Your task to perform on an android device: toggle javascript in the chrome app Image 0: 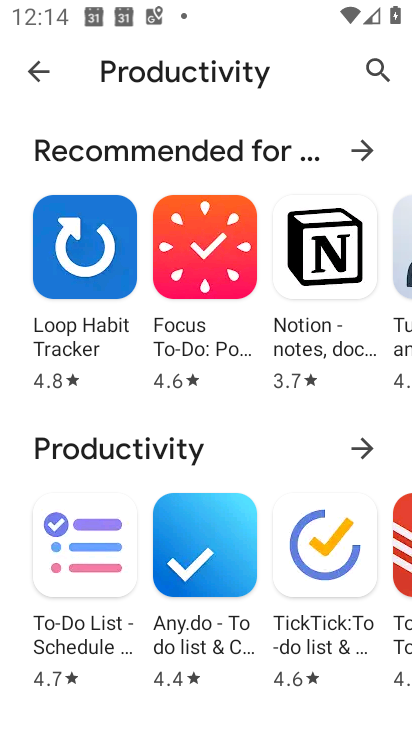
Step 0: press home button
Your task to perform on an android device: toggle javascript in the chrome app Image 1: 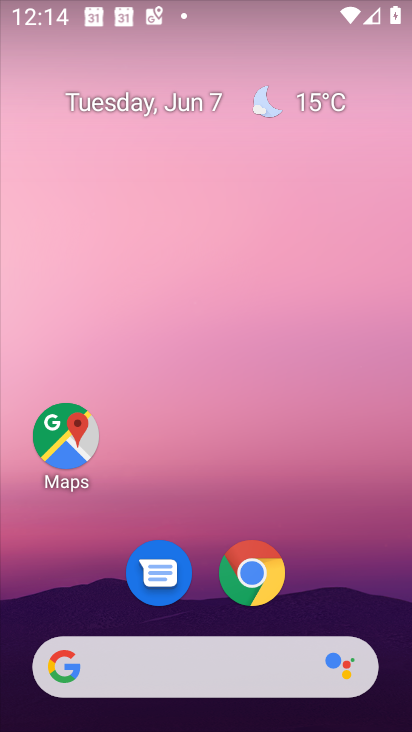
Step 1: click (236, 561)
Your task to perform on an android device: toggle javascript in the chrome app Image 2: 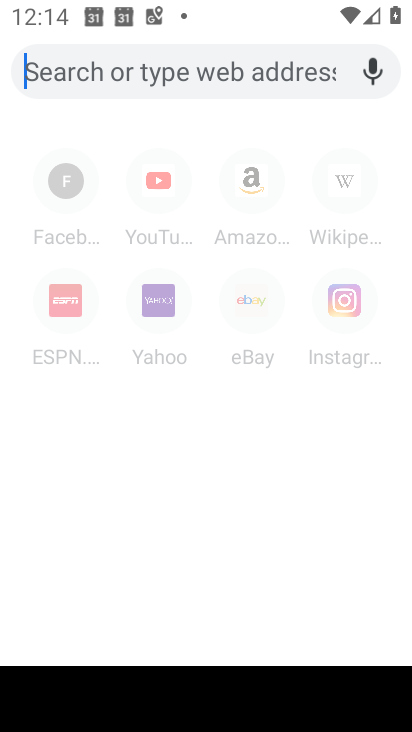
Step 2: press home button
Your task to perform on an android device: toggle javascript in the chrome app Image 3: 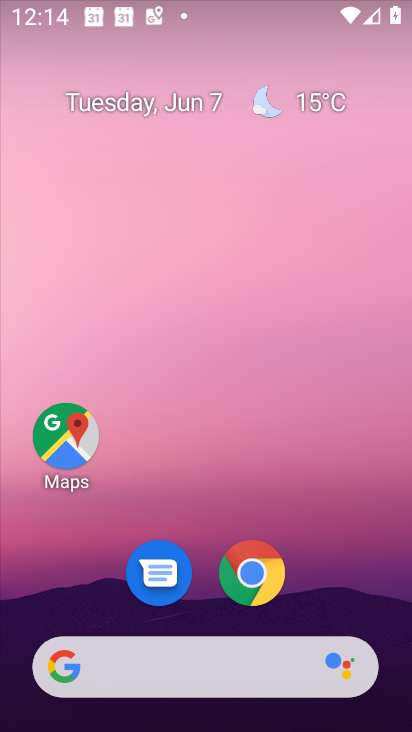
Step 3: click (250, 570)
Your task to perform on an android device: toggle javascript in the chrome app Image 4: 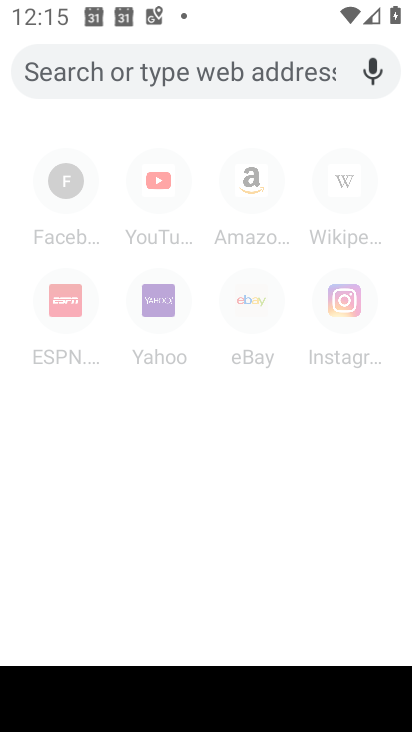
Step 4: press back button
Your task to perform on an android device: toggle javascript in the chrome app Image 5: 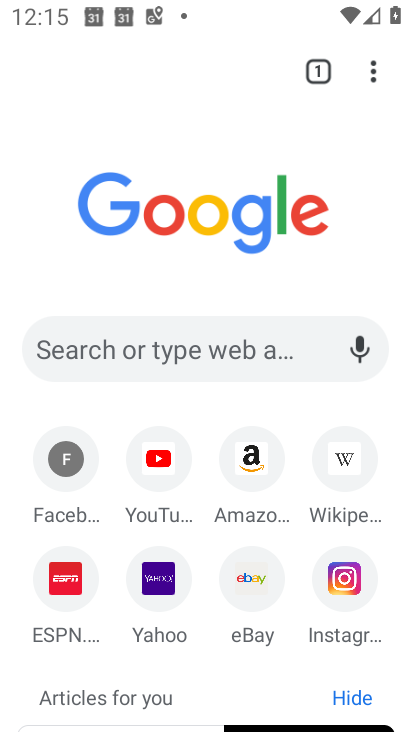
Step 5: drag from (380, 70) to (213, 571)
Your task to perform on an android device: toggle javascript in the chrome app Image 6: 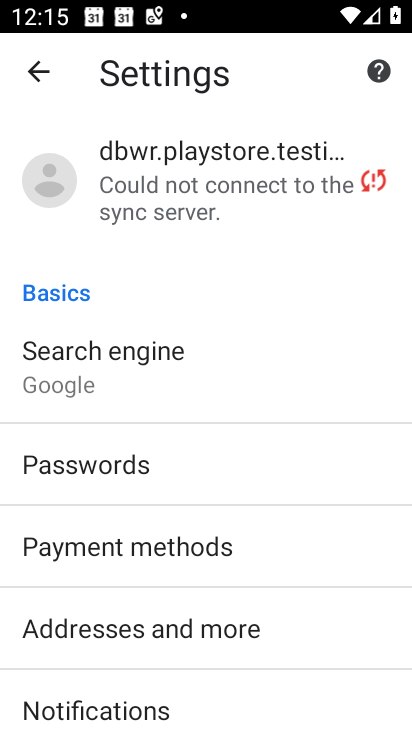
Step 6: drag from (275, 676) to (305, 126)
Your task to perform on an android device: toggle javascript in the chrome app Image 7: 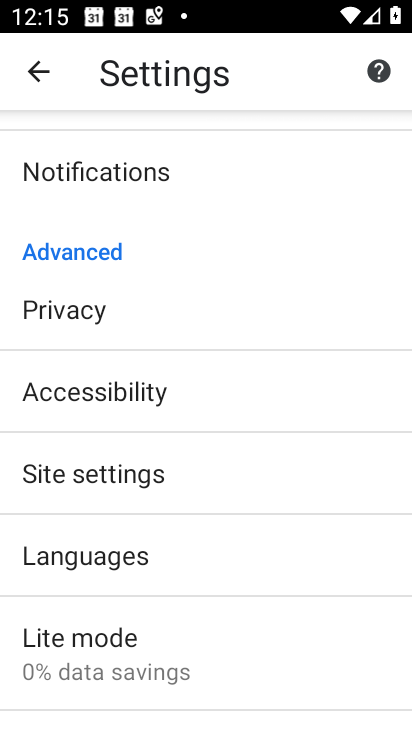
Step 7: click (72, 470)
Your task to perform on an android device: toggle javascript in the chrome app Image 8: 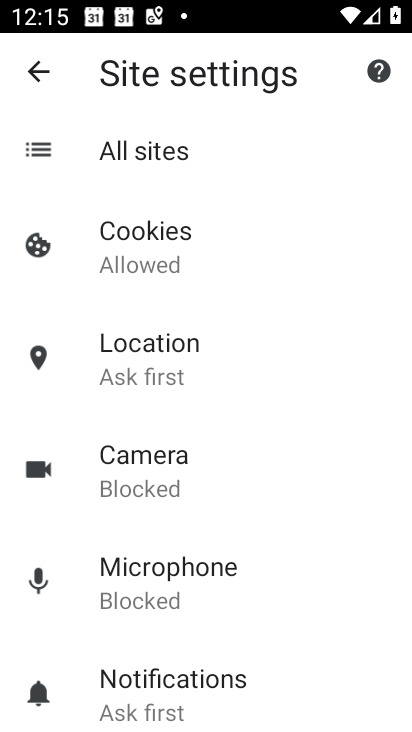
Step 8: drag from (336, 641) to (357, 172)
Your task to perform on an android device: toggle javascript in the chrome app Image 9: 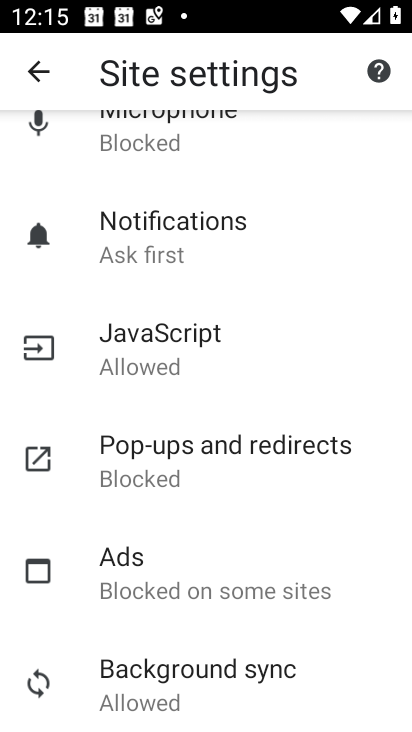
Step 9: click (116, 339)
Your task to perform on an android device: toggle javascript in the chrome app Image 10: 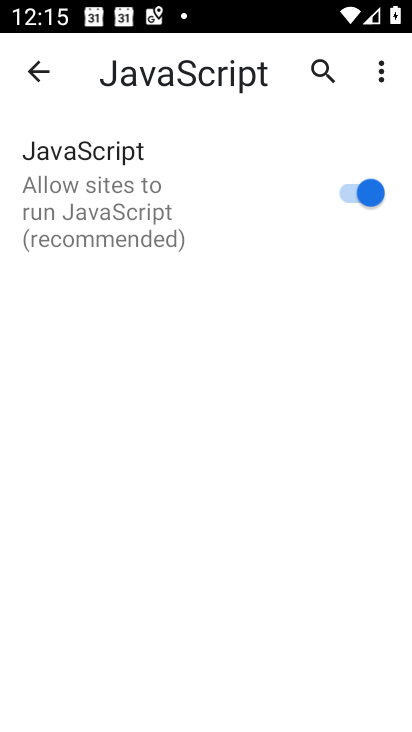
Step 10: click (367, 193)
Your task to perform on an android device: toggle javascript in the chrome app Image 11: 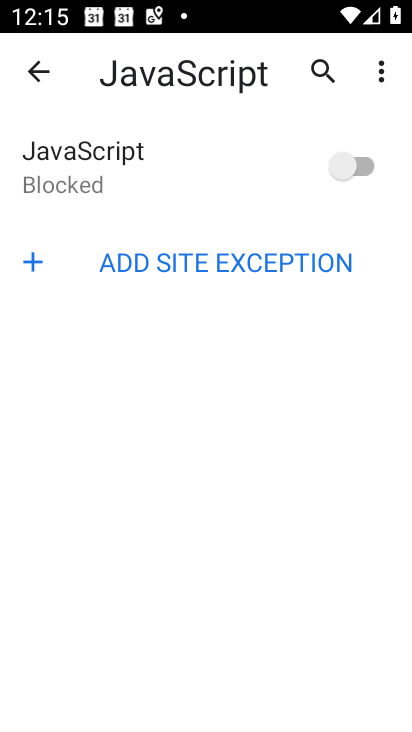
Step 11: task complete